Your task to perform on an android device: Show me popular games on the Play Store Image 0: 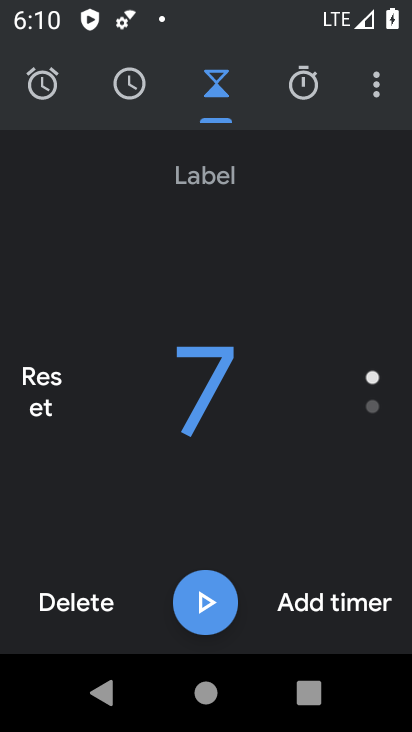
Step 0: press home button
Your task to perform on an android device: Show me popular games on the Play Store Image 1: 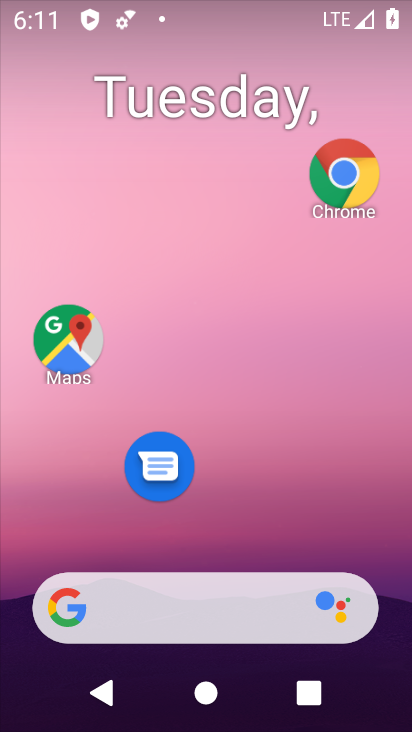
Step 1: drag from (287, 495) to (215, 84)
Your task to perform on an android device: Show me popular games on the Play Store Image 2: 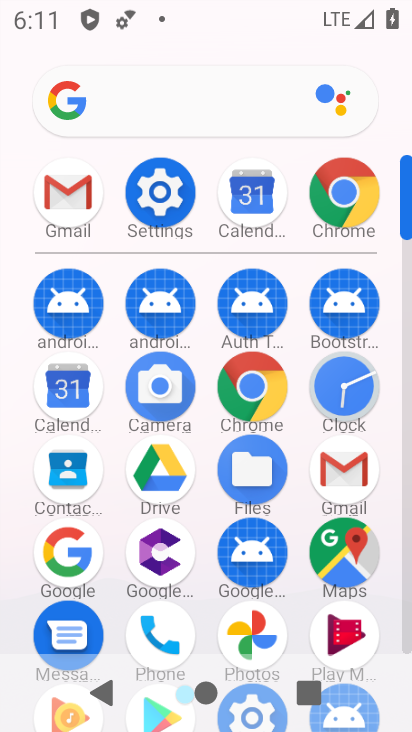
Step 2: click (400, 450)
Your task to perform on an android device: Show me popular games on the Play Store Image 3: 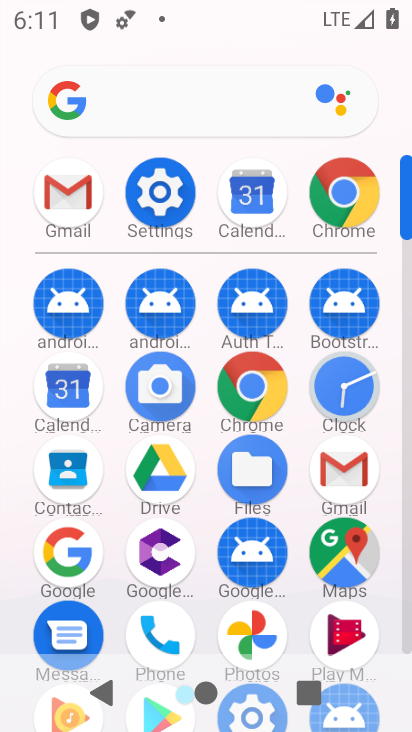
Step 3: click (404, 456)
Your task to perform on an android device: Show me popular games on the Play Store Image 4: 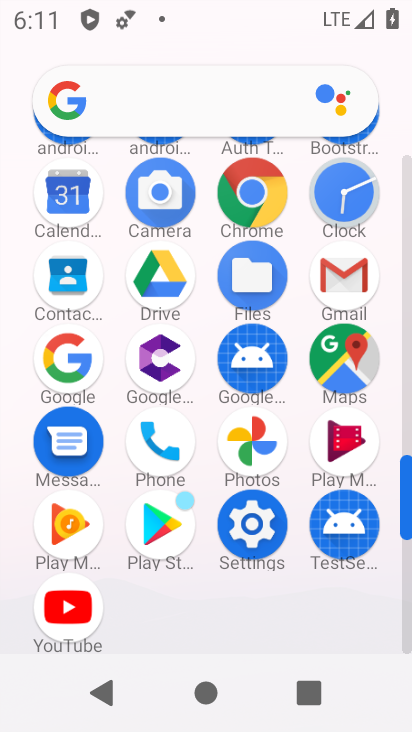
Step 4: click (164, 516)
Your task to perform on an android device: Show me popular games on the Play Store Image 5: 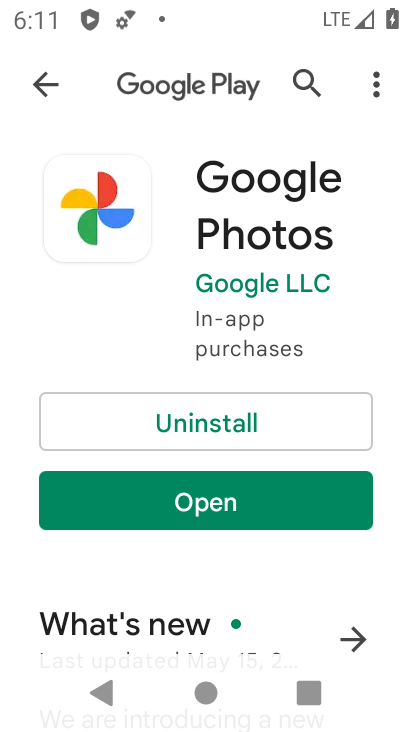
Step 5: click (59, 75)
Your task to perform on an android device: Show me popular games on the Play Store Image 6: 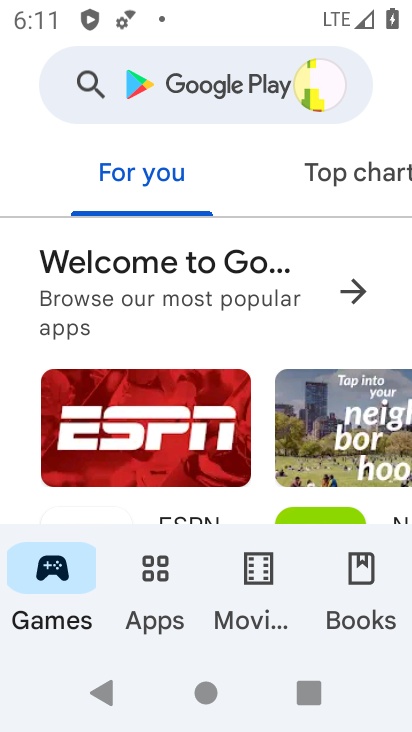
Step 6: click (145, 82)
Your task to perform on an android device: Show me popular games on the Play Store Image 7: 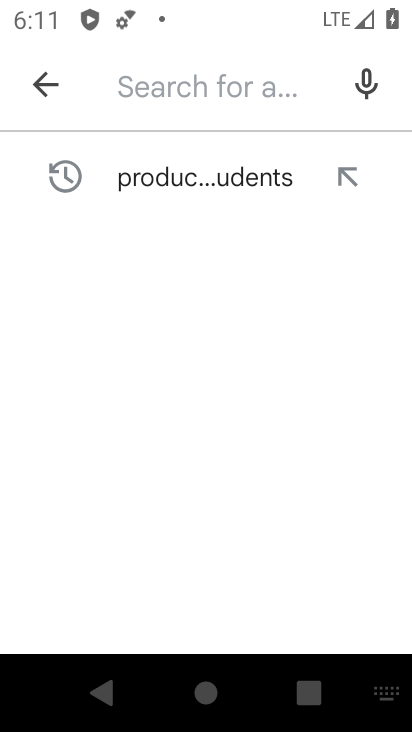
Step 7: type "popular games "
Your task to perform on an android device: Show me popular games on the Play Store Image 8: 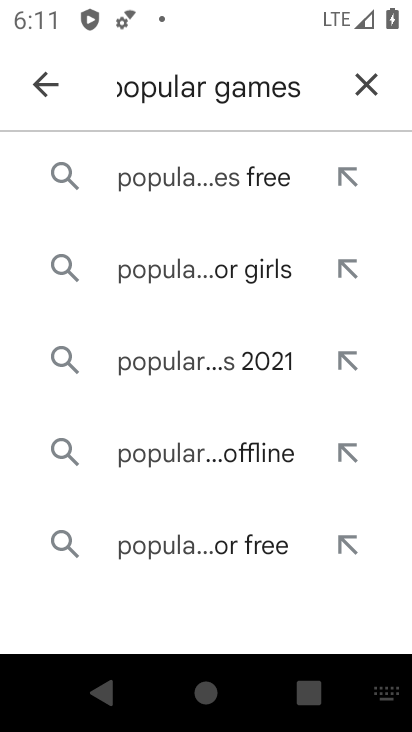
Step 8: click (191, 182)
Your task to perform on an android device: Show me popular games on the Play Store Image 9: 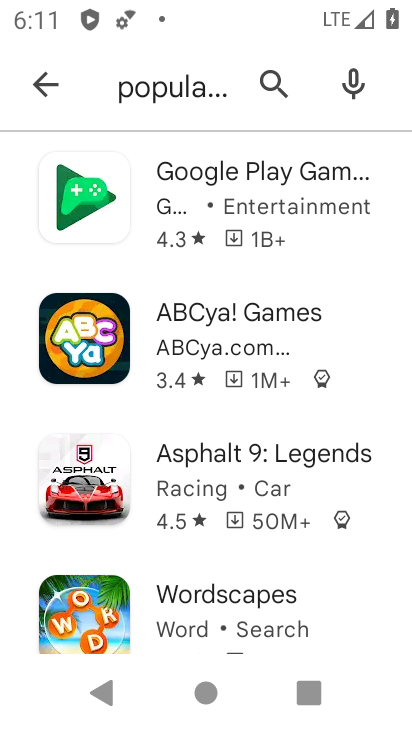
Step 9: task complete